Your task to perform on an android device: toggle airplane mode Image 0: 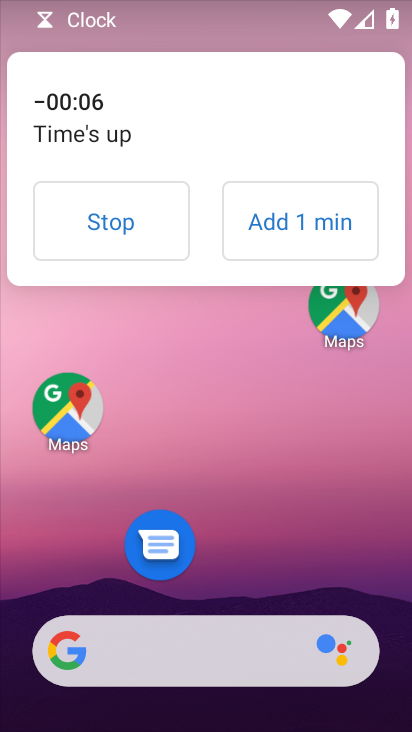
Step 0: click (70, 209)
Your task to perform on an android device: toggle airplane mode Image 1: 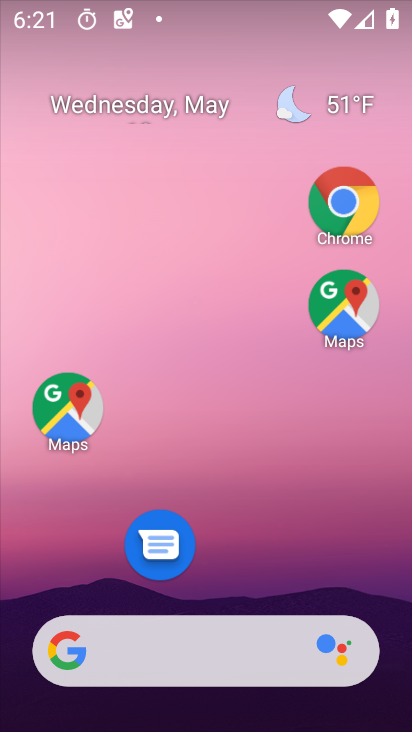
Step 1: drag from (267, 572) to (238, 159)
Your task to perform on an android device: toggle airplane mode Image 2: 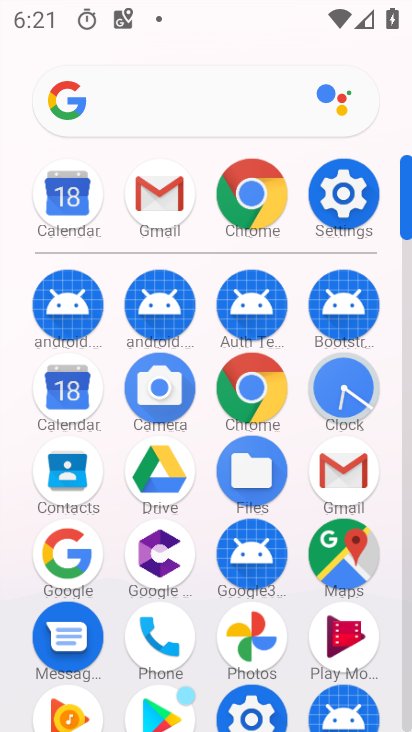
Step 2: click (342, 207)
Your task to perform on an android device: toggle airplane mode Image 3: 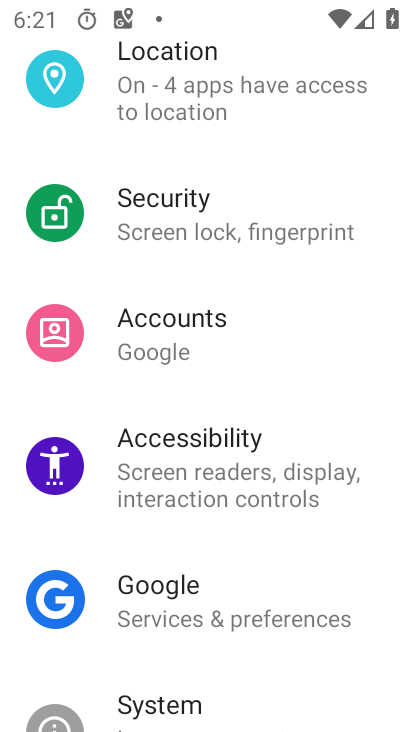
Step 3: drag from (149, 161) to (157, 494)
Your task to perform on an android device: toggle airplane mode Image 4: 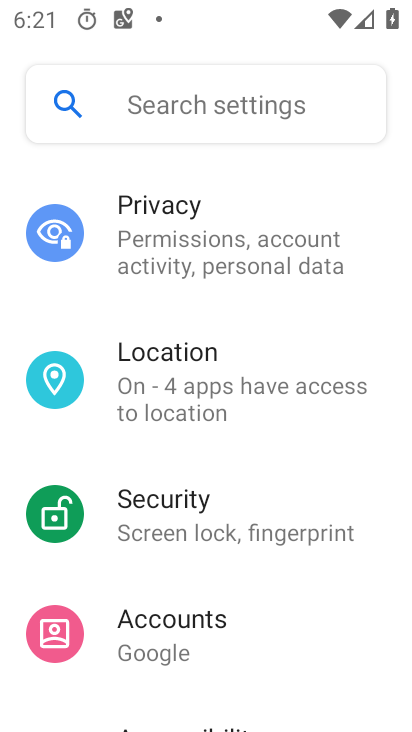
Step 4: drag from (191, 243) to (212, 490)
Your task to perform on an android device: toggle airplane mode Image 5: 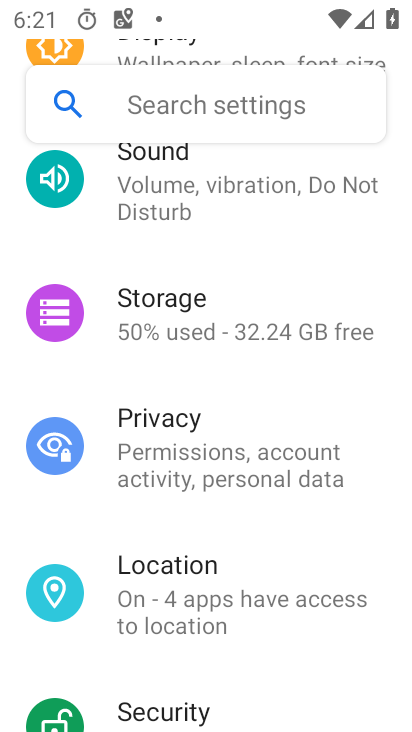
Step 5: click (219, 687)
Your task to perform on an android device: toggle airplane mode Image 6: 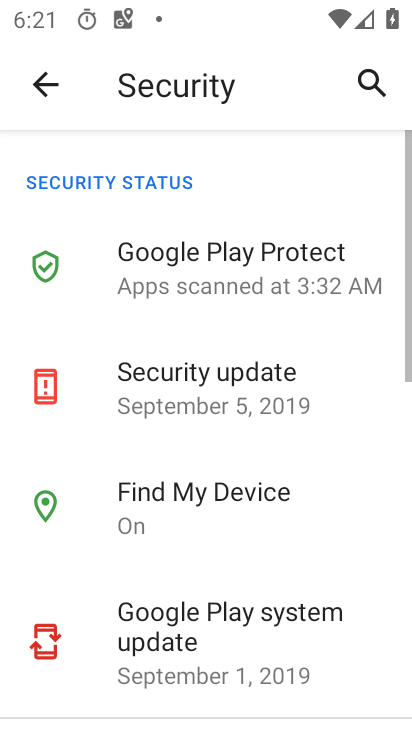
Step 6: drag from (250, 199) to (272, 549)
Your task to perform on an android device: toggle airplane mode Image 7: 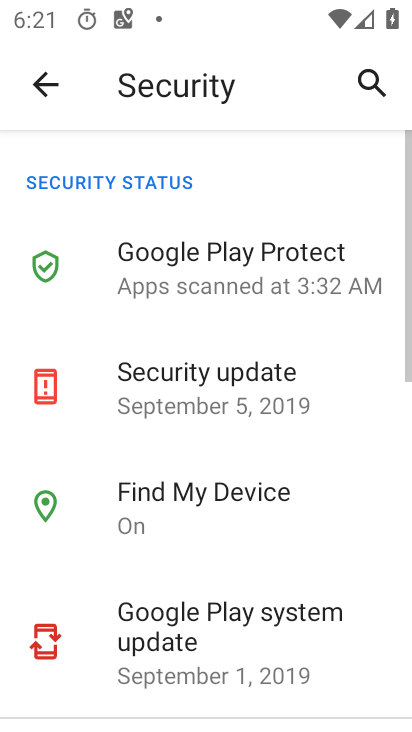
Step 7: click (41, 90)
Your task to perform on an android device: toggle airplane mode Image 8: 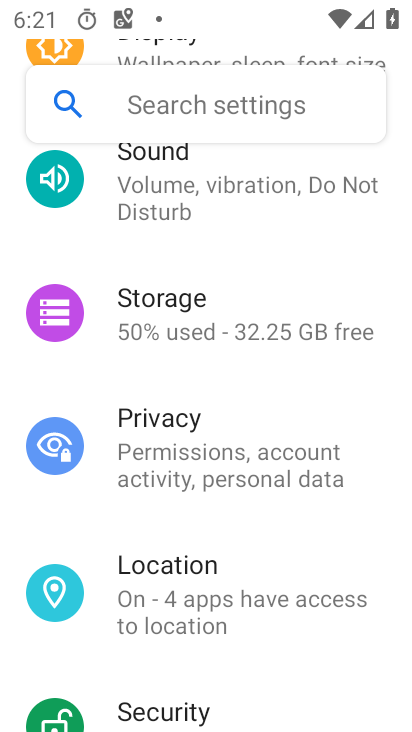
Step 8: drag from (228, 362) to (243, 472)
Your task to perform on an android device: toggle airplane mode Image 9: 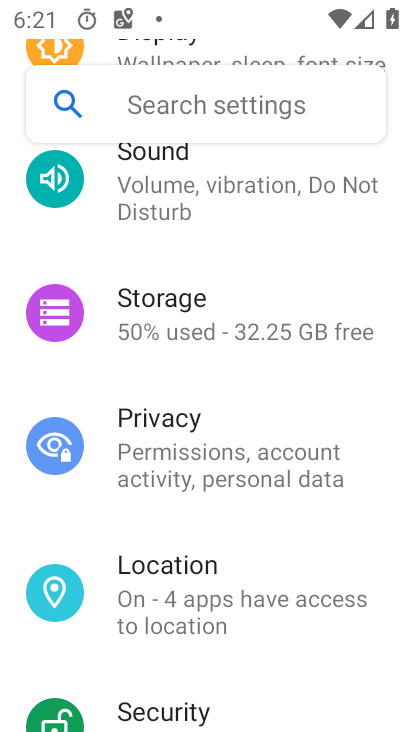
Step 9: drag from (221, 205) to (241, 528)
Your task to perform on an android device: toggle airplane mode Image 10: 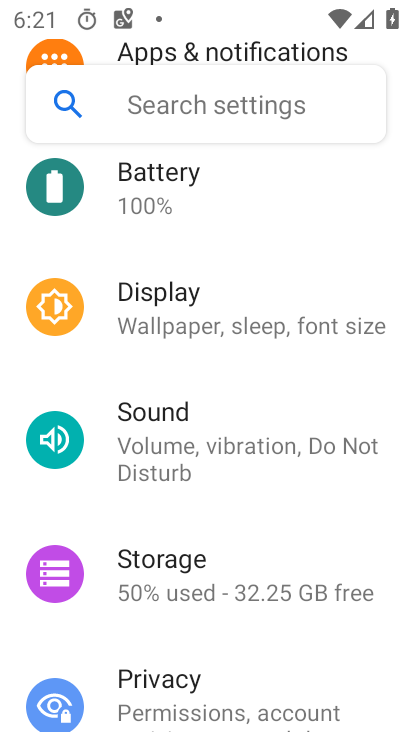
Step 10: drag from (238, 301) to (241, 655)
Your task to perform on an android device: toggle airplane mode Image 11: 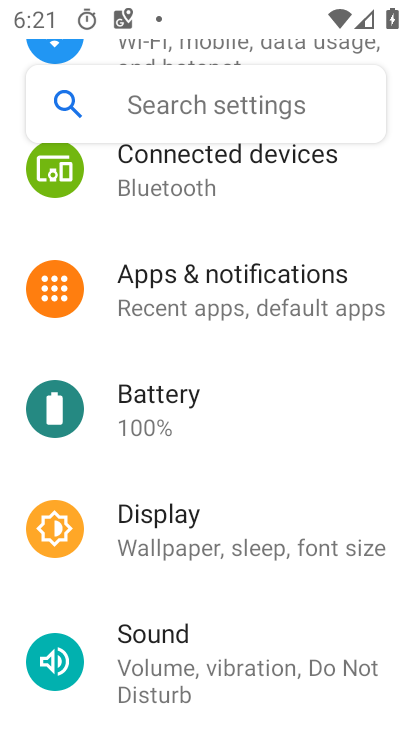
Step 11: drag from (74, 398) to (64, 446)
Your task to perform on an android device: toggle airplane mode Image 12: 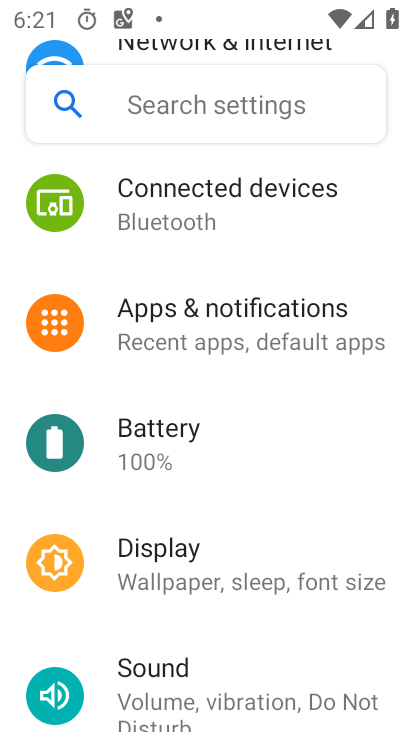
Step 12: drag from (175, 196) to (175, 516)
Your task to perform on an android device: toggle airplane mode Image 13: 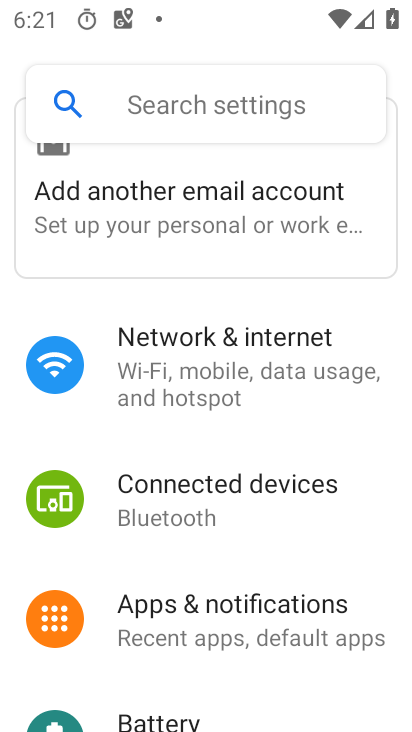
Step 13: drag from (196, 296) to (235, 633)
Your task to perform on an android device: toggle airplane mode Image 14: 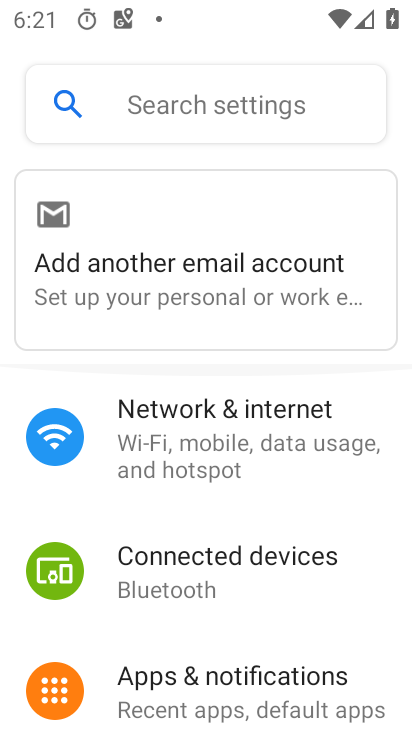
Step 14: click (182, 367)
Your task to perform on an android device: toggle airplane mode Image 15: 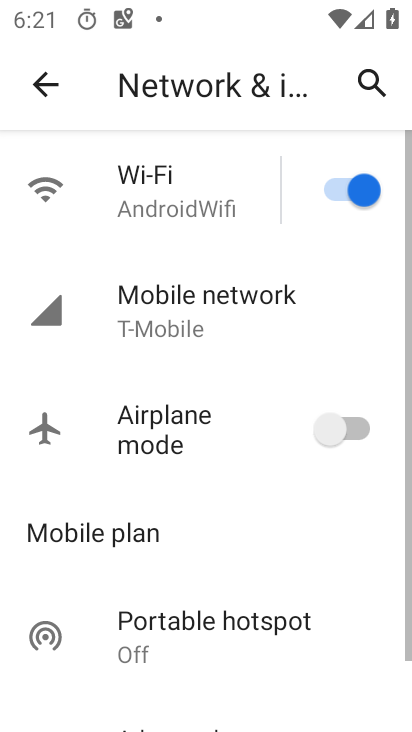
Step 15: click (182, 413)
Your task to perform on an android device: toggle airplane mode Image 16: 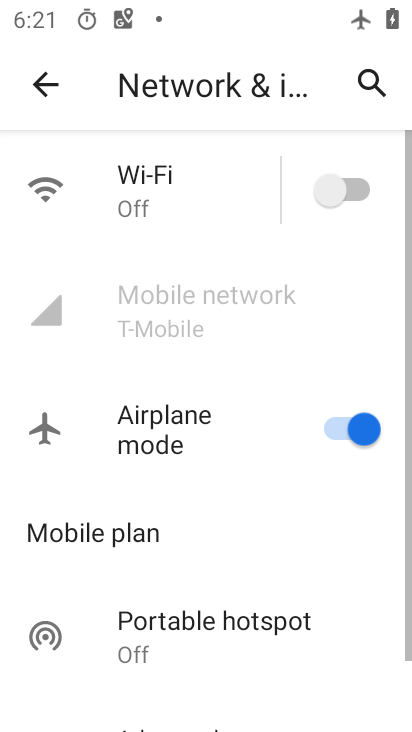
Step 16: click (357, 419)
Your task to perform on an android device: toggle airplane mode Image 17: 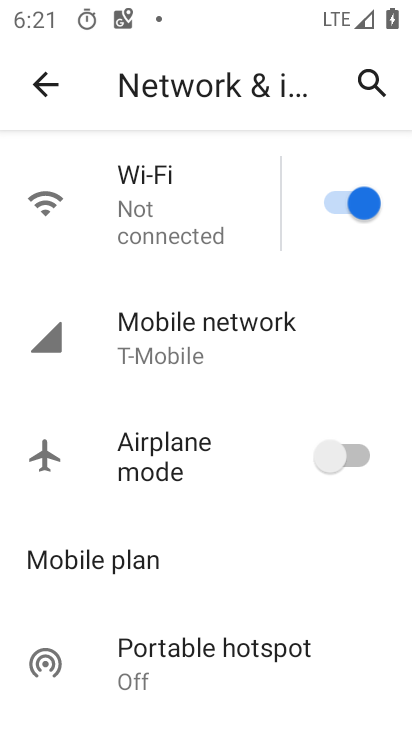
Step 17: click (356, 450)
Your task to perform on an android device: toggle airplane mode Image 18: 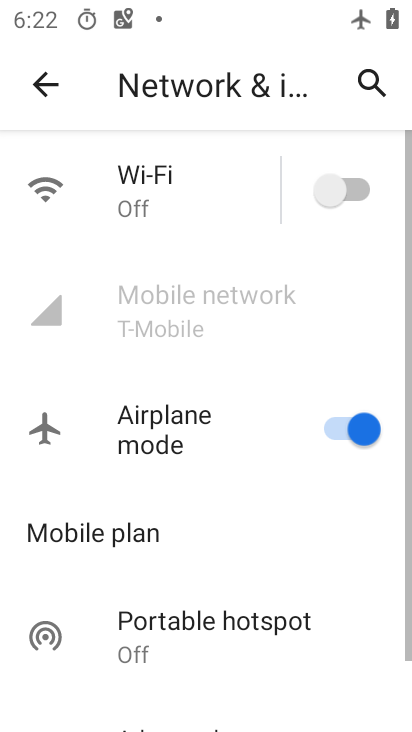
Step 18: task complete